Your task to perform on an android device: What's on my calendar tomorrow? Image 0: 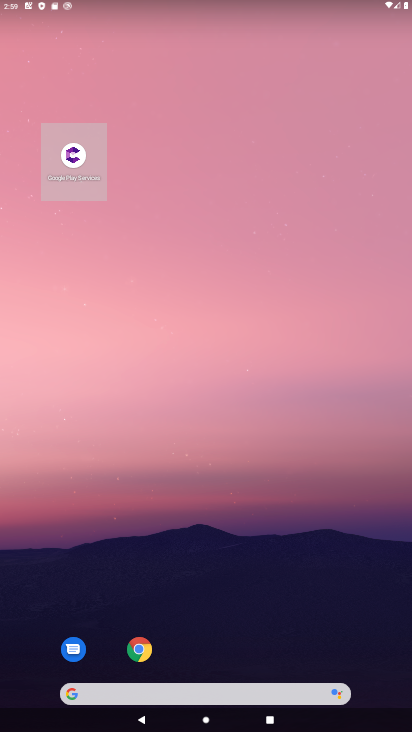
Step 0: drag from (347, 602) to (242, 157)
Your task to perform on an android device: What's on my calendar tomorrow? Image 1: 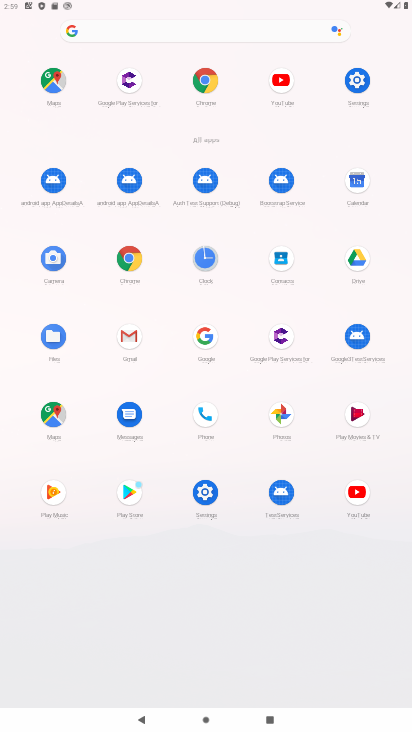
Step 1: click (360, 184)
Your task to perform on an android device: What's on my calendar tomorrow? Image 2: 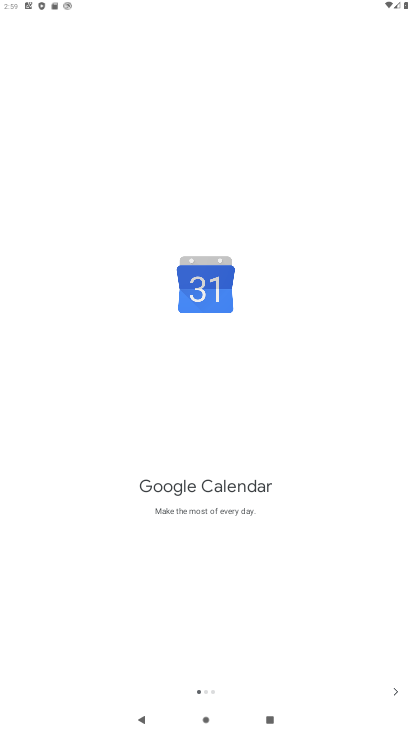
Step 2: click (401, 688)
Your task to perform on an android device: What's on my calendar tomorrow? Image 3: 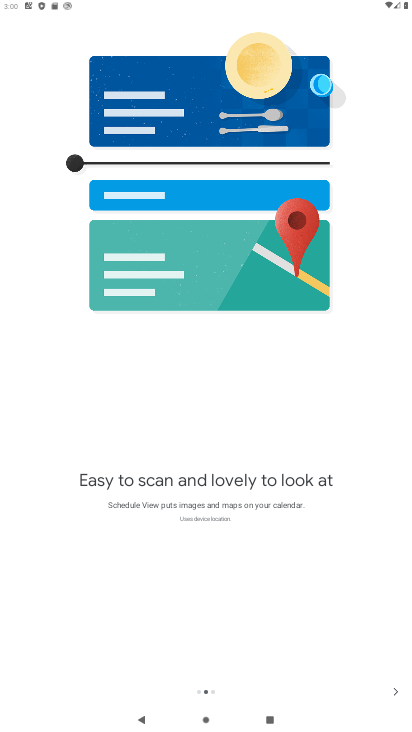
Step 3: click (401, 687)
Your task to perform on an android device: What's on my calendar tomorrow? Image 4: 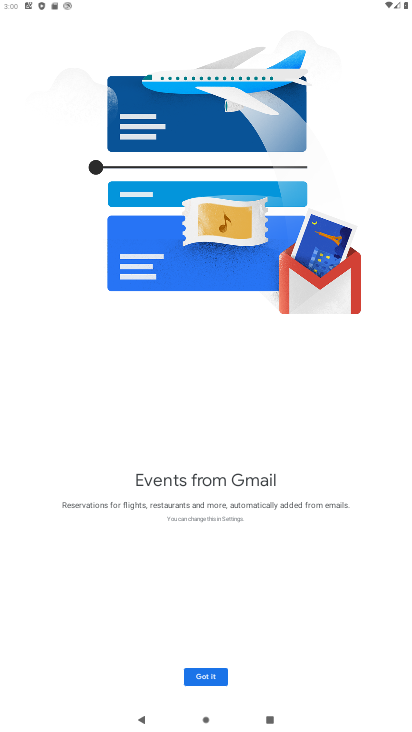
Step 4: click (208, 685)
Your task to perform on an android device: What's on my calendar tomorrow? Image 5: 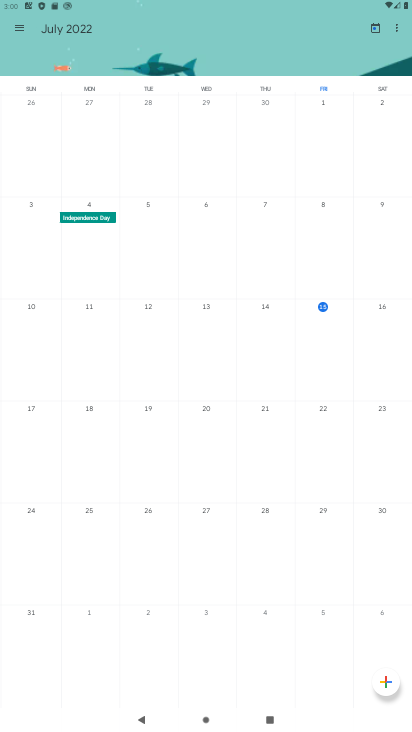
Step 5: click (387, 311)
Your task to perform on an android device: What's on my calendar tomorrow? Image 6: 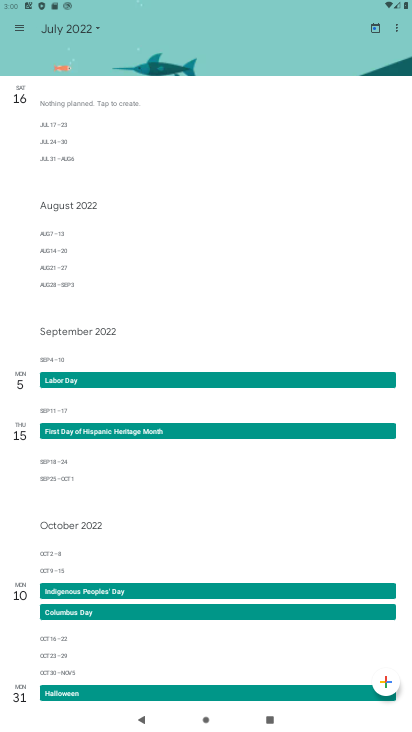
Step 6: task complete